Your task to perform on an android device: Open ESPN.com Image 0: 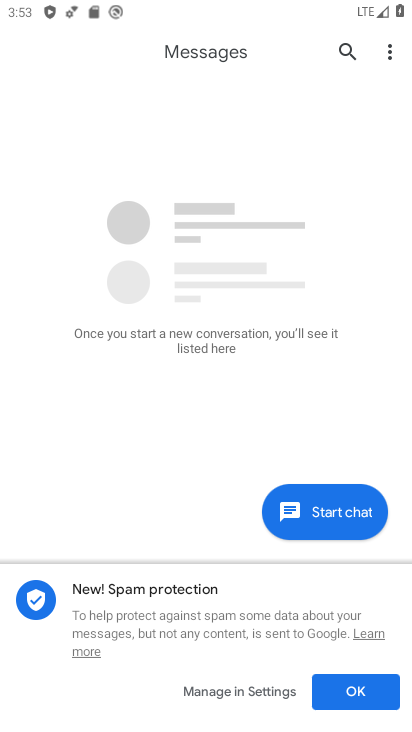
Step 0: press home button
Your task to perform on an android device: Open ESPN.com Image 1: 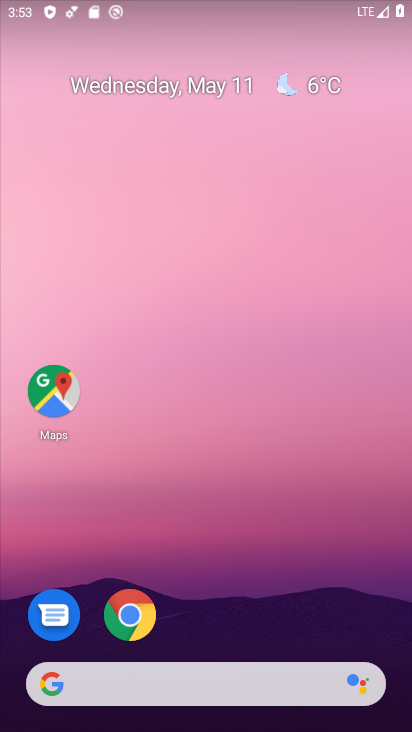
Step 1: click (132, 613)
Your task to perform on an android device: Open ESPN.com Image 2: 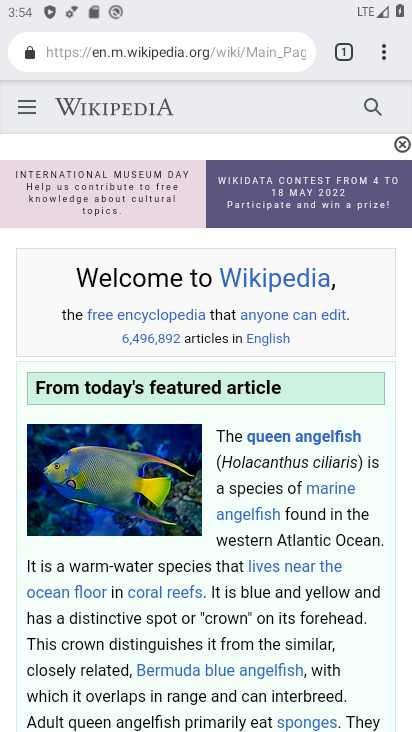
Step 2: click (285, 67)
Your task to perform on an android device: Open ESPN.com Image 3: 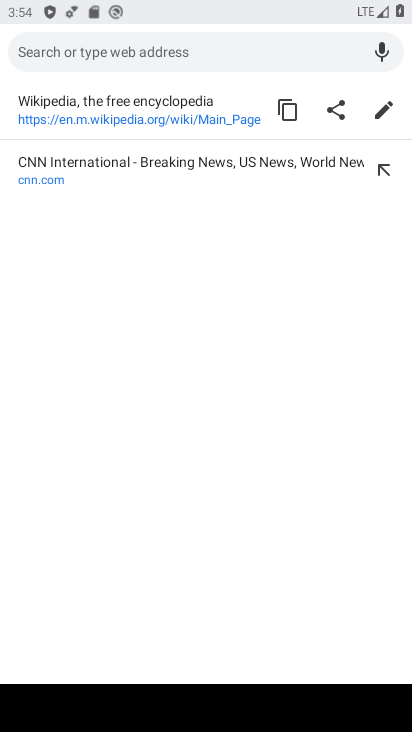
Step 3: type "espn.com"
Your task to perform on an android device: Open ESPN.com Image 4: 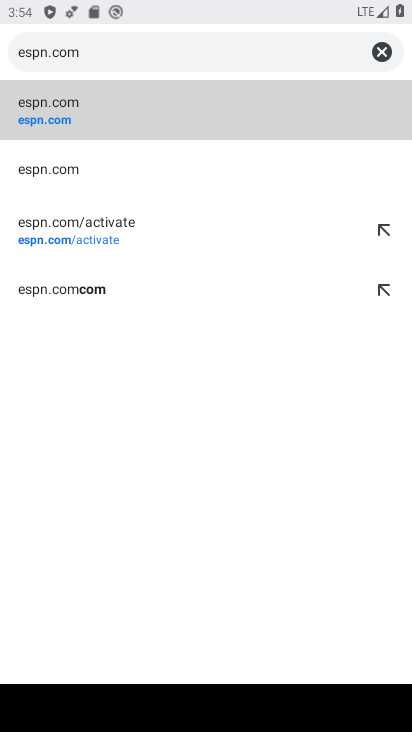
Step 4: click (136, 122)
Your task to perform on an android device: Open ESPN.com Image 5: 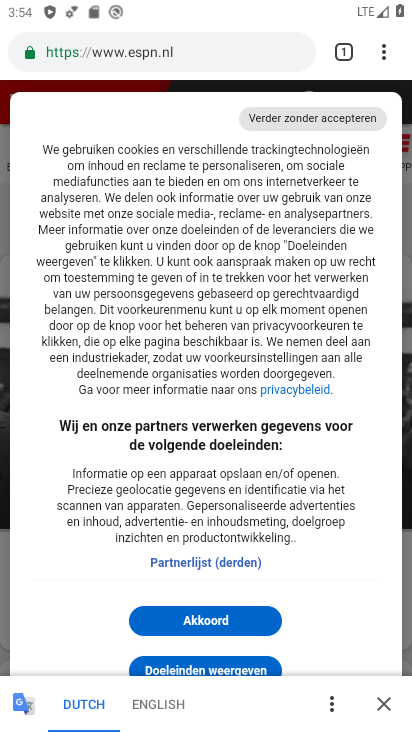
Step 5: task complete